Your task to perform on an android device: add a contact in the contacts app Image 0: 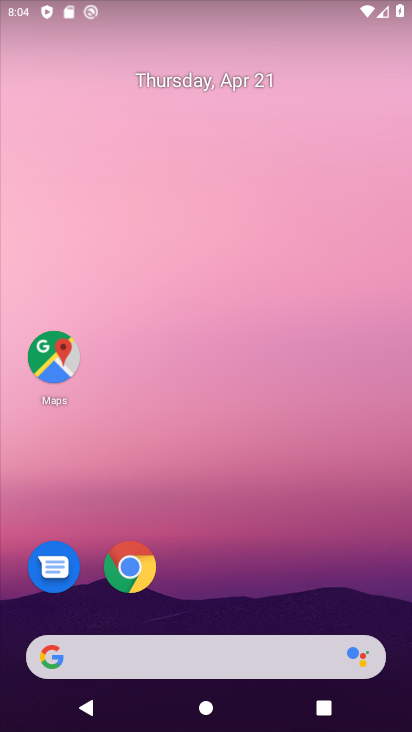
Step 0: drag from (223, 645) to (205, 5)
Your task to perform on an android device: add a contact in the contacts app Image 1: 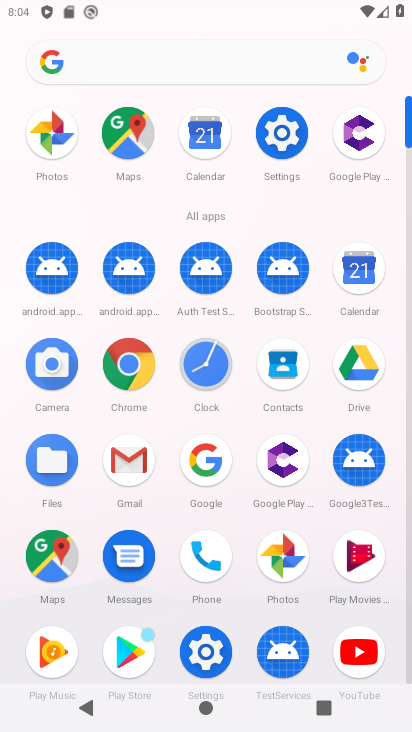
Step 1: click (193, 545)
Your task to perform on an android device: add a contact in the contacts app Image 2: 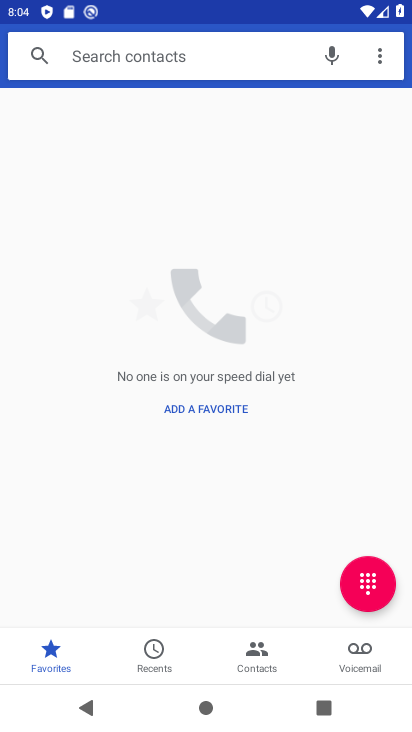
Step 2: click (251, 643)
Your task to perform on an android device: add a contact in the contacts app Image 3: 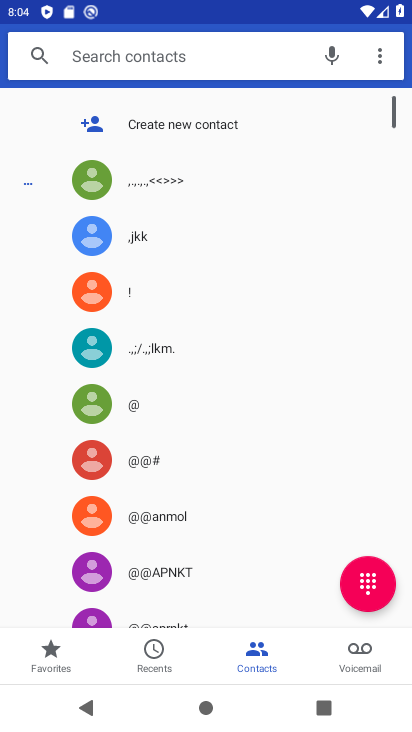
Step 3: click (157, 110)
Your task to perform on an android device: add a contact in the contacts app Image 4: 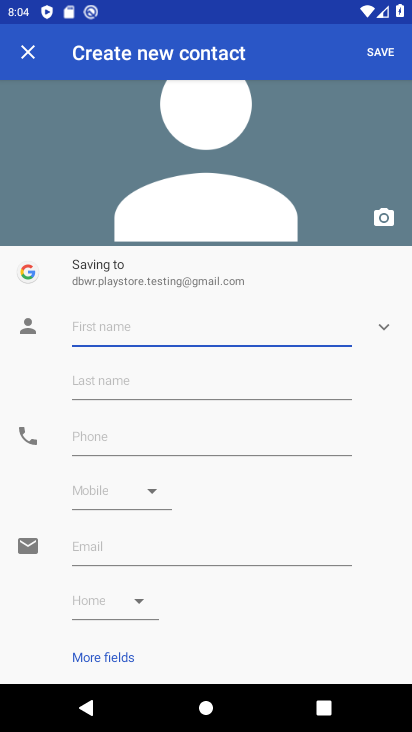
Step 4: type "fd"
Your task to perform on an android device: add a contact in the contacts app Image 5: 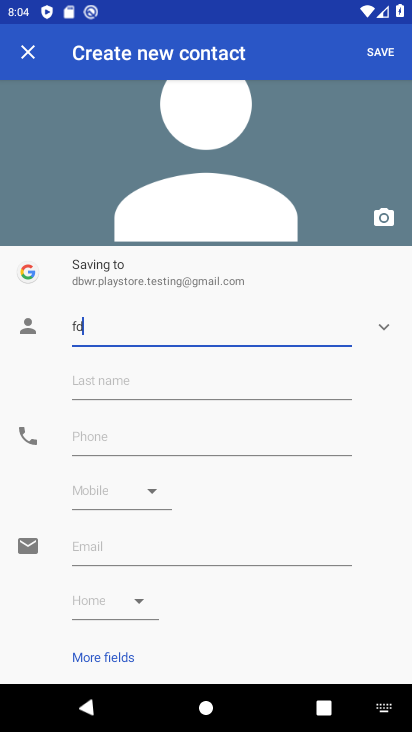
Step 5: click (110, 449)
Your task to perform on an android device: add a contact in the contacts app Image 6: 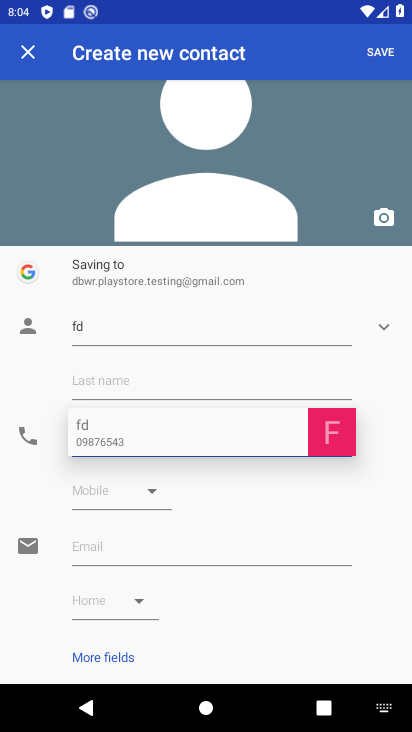
Step 6: type "43"
Your task to perform on an android device: add a contact in the contacts app Image 7: 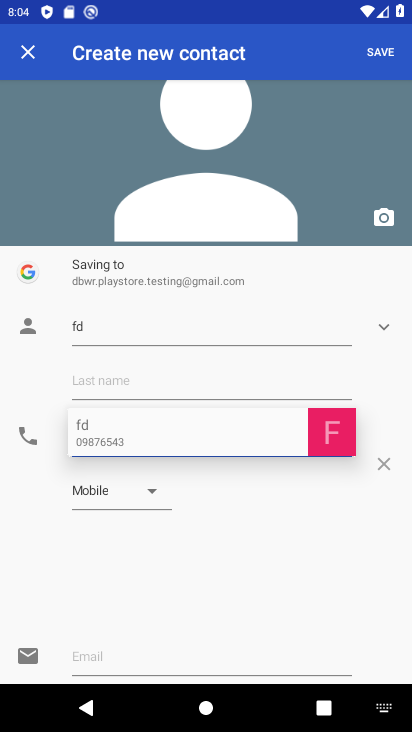
Step 7: type ""
Your task to perform on an android device: add a contact in the contacts app Image 8: 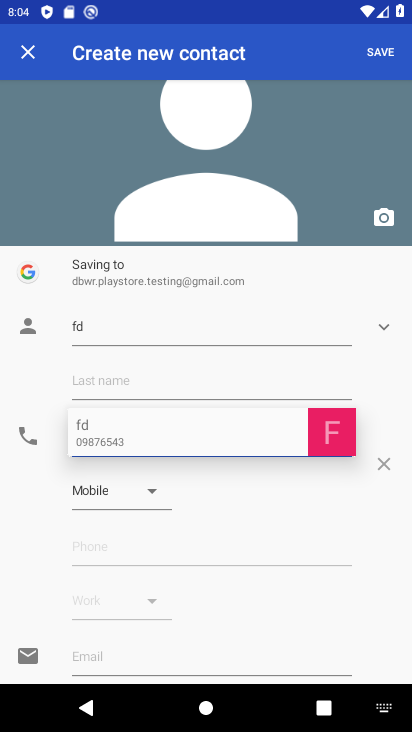
Step 8: click (375, 37)
Your task to perform on an android device: add a contact in the contacts app Image 9: 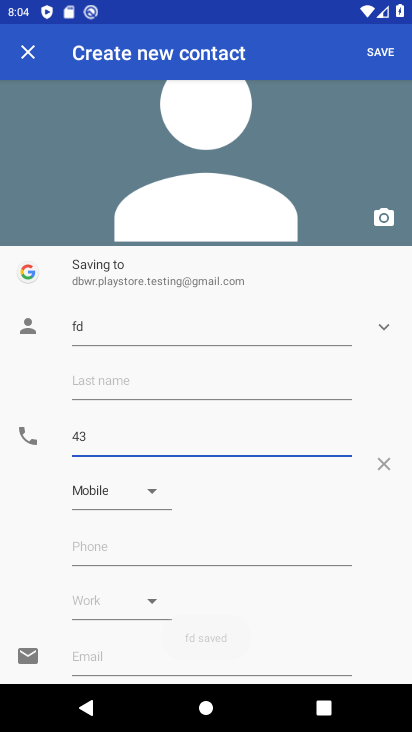
Step 9: click (370, 51)
Your task to perform on an android device: add a contact in the contacts app Image 10: 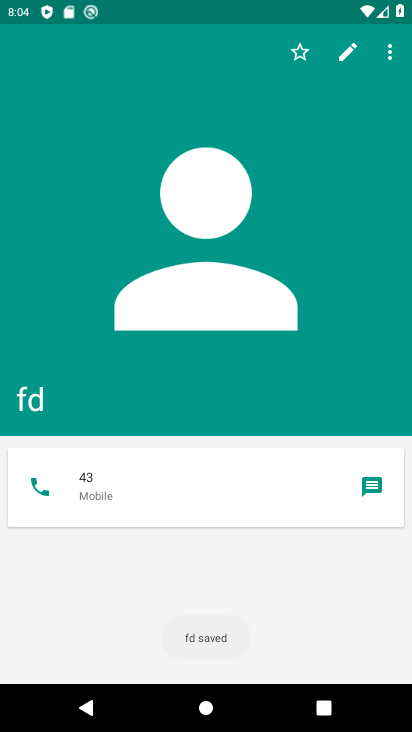
Step 10: click (370, 51)
Your task to perform on an android device: add a contact in the contacts app Image 11: 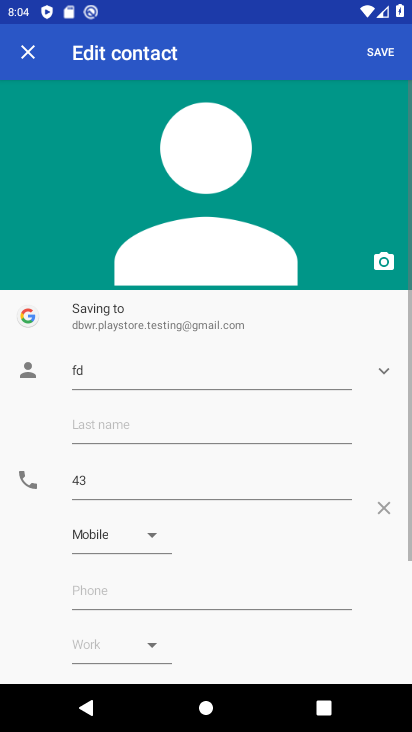
Step 11: click (370, 52)
Your task to perform on an android device: add a contact in the contacts app Image 12: 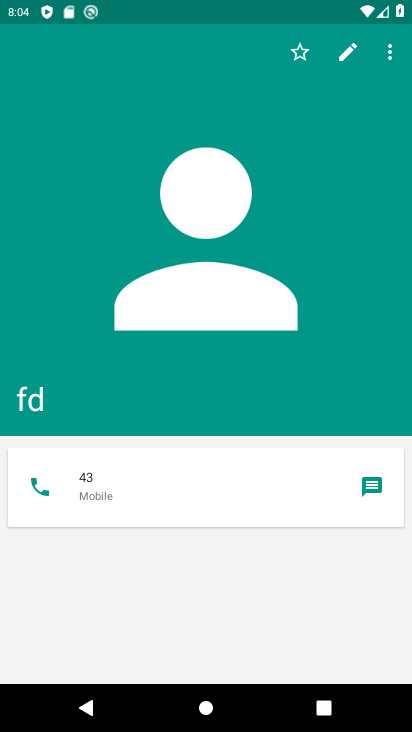
Step 12: task complete